Your task to perform on an android device: Show me recent news Image 0: 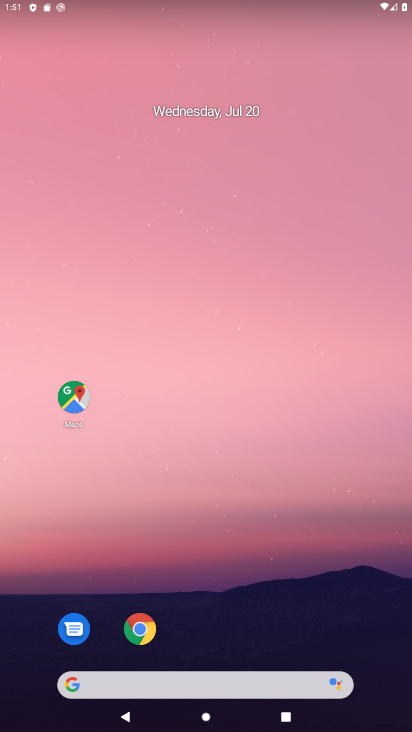
Step 0: drag from (238, 624) to (277, 66)
Your task to perform on an android device: Show me recent news Image 1: 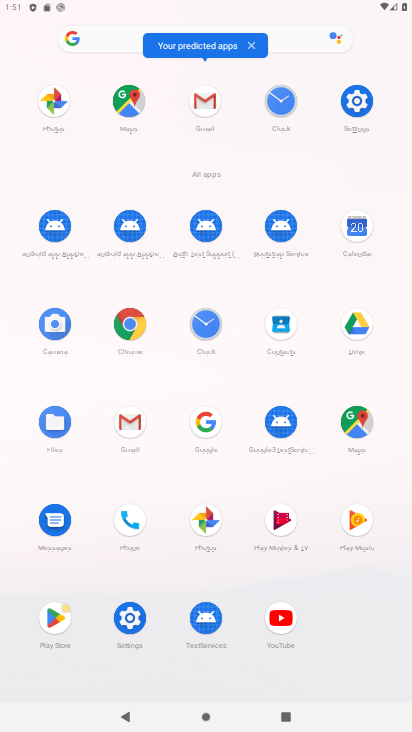
Step 1: click (126, 333)
Your task to perform on an android device: Show me recent news Image 2: 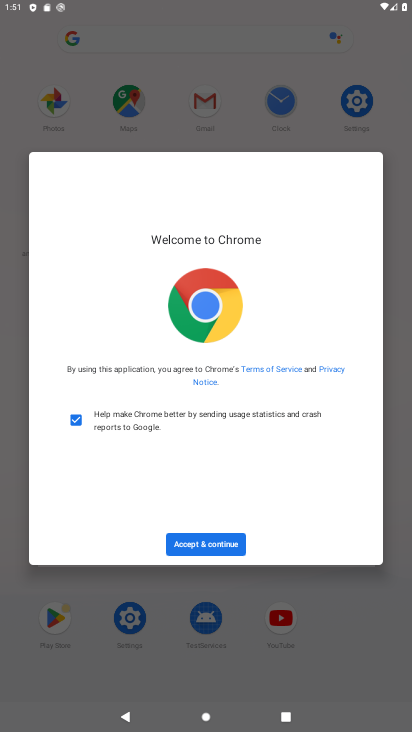
Step 2: click (232, 535)
Your task to perform on an android device: Show me recent news Image 3: 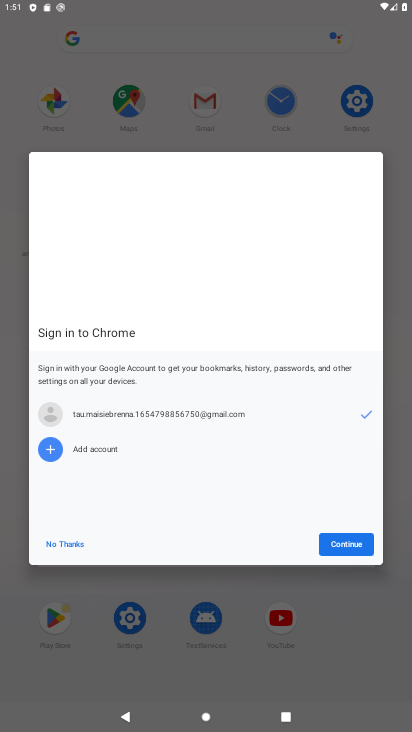
Step 3: click (365, 548)
Your task to perform on an android device: Show me recent news Image 4: 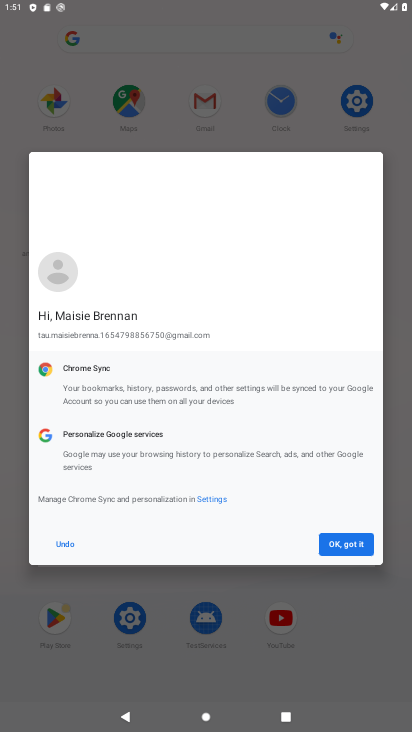
Step 4: click (365, 548)
Your task to perform on an android device: Show me recent news Image 5: 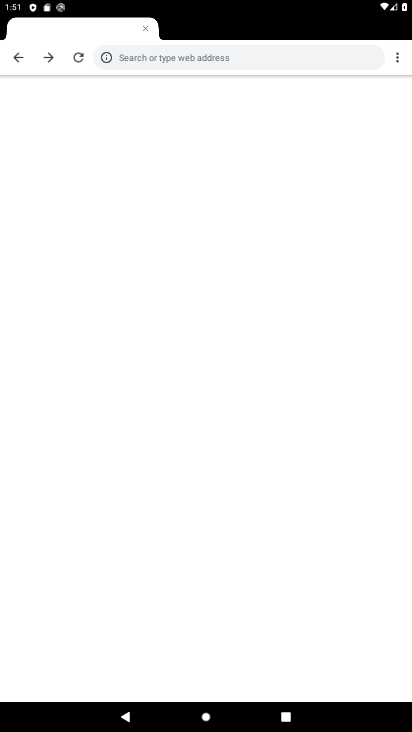
Step 5: click (253, 53)
Your task to perform on an android device: Show me recent news Image 6: 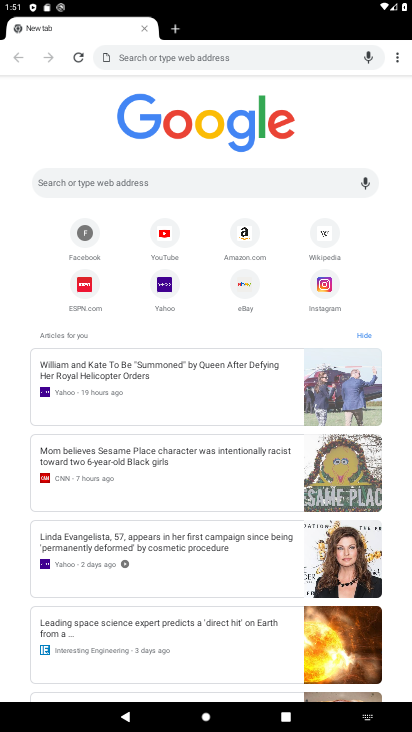
Step 6: type "recent news"
Your task to perform on an android device: Show me recent news Image 7: 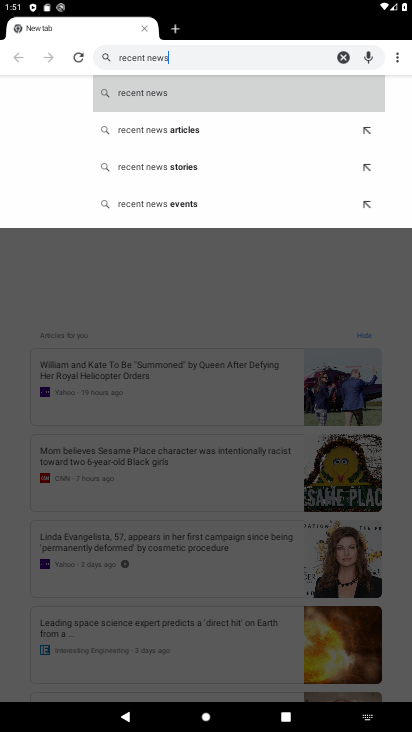
Step 7: click (171, 99)
Your task to perform on an android device: Show me recent news Image 8: 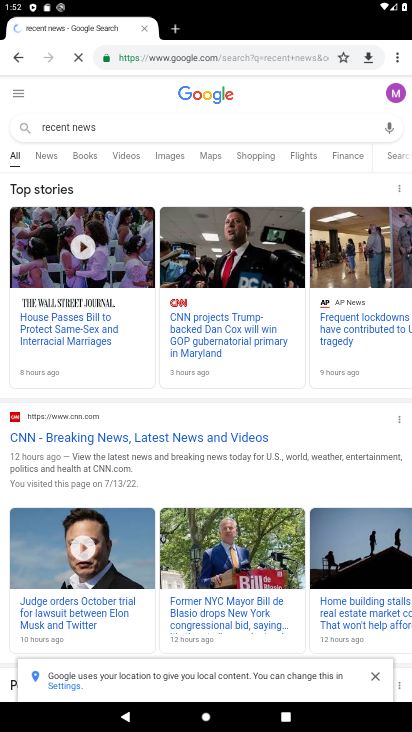
Step 8: task complete